Your task to perform on an android device: Turn on the flashlight Image 0: 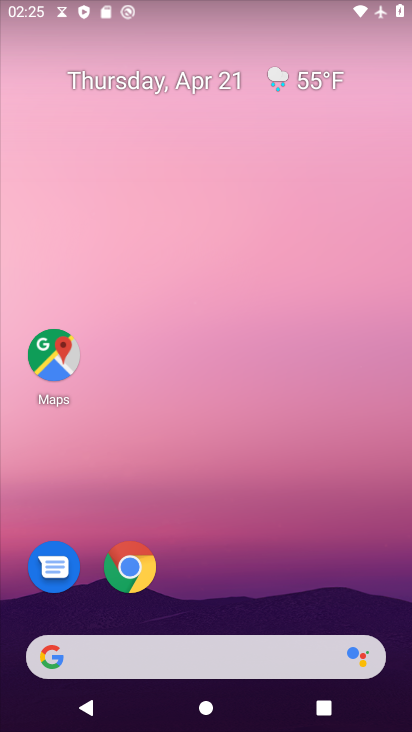
Step 0: drag from (243, 6) to (223, 397)
Your task to perform on an android device: Turn on the flashlight Image 1: 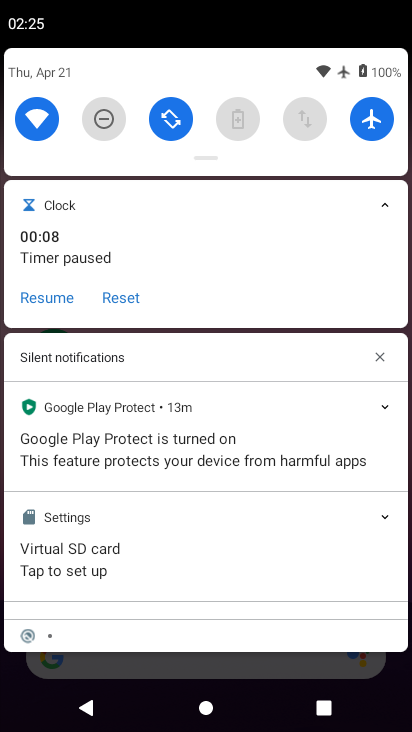
Step 1: task complete